Your task to perform on an android device: search for starred emails in the gmail app Image 0: 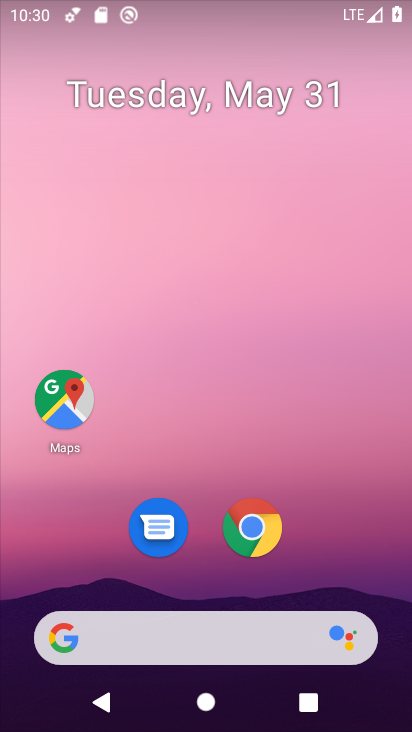
Step 0: drag from (328, 563) to (333, 0)
Your task to perform on an android device: search for starred emails in the gmail app Image 1: 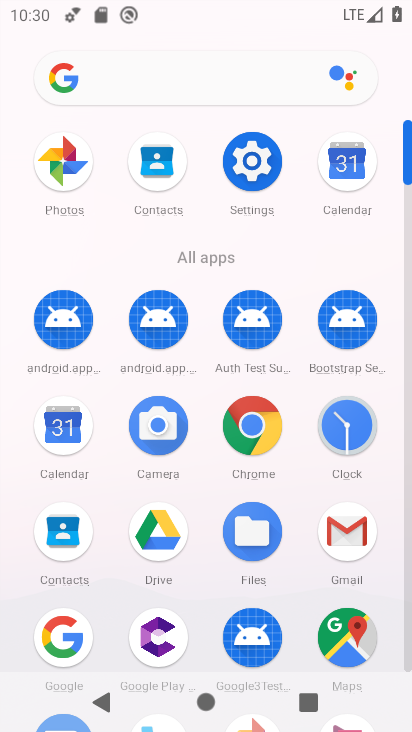
Step 1: click (339, 548)
Your task to perform on an android device: search for starred emails in the gmail app Image 2: 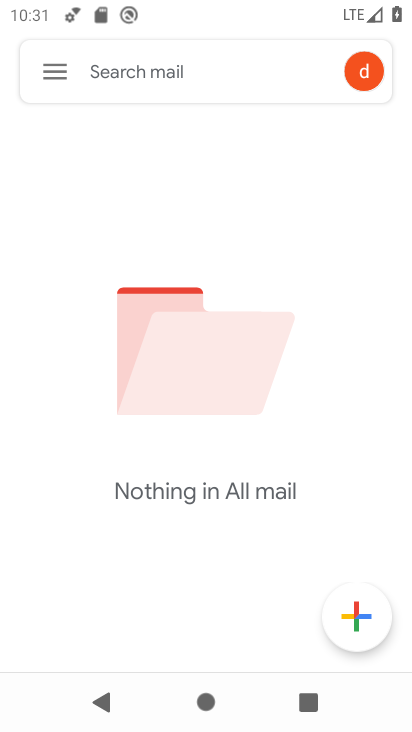
Step 2: click (68, 77)
Your task to perform on an android device: search for starred emails in the gmail app Image 3: 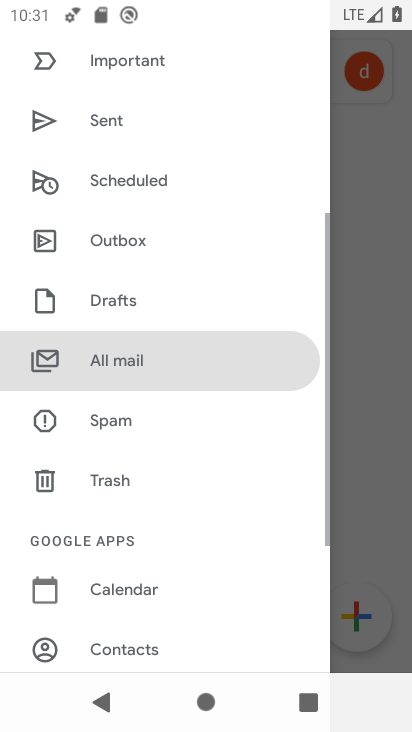
Step 3: drag from (155, 151) to (185, 593)
Your task to perform on an android device: search for starred emails in the gmail app Image 4: 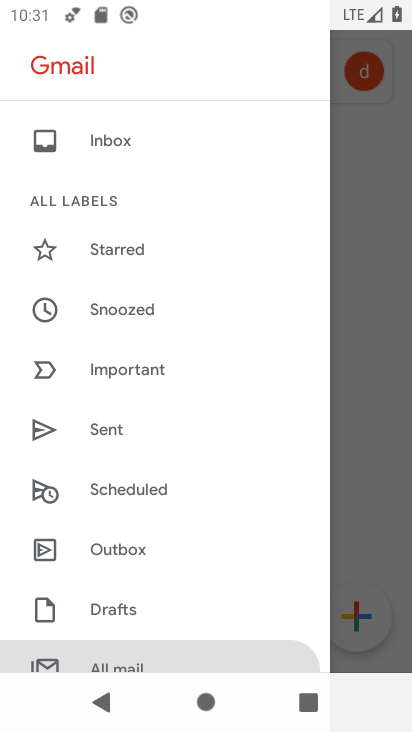
Step 4: click (105, 258)
Your task to perform on an android device: search for starred emails in the gmail app Image 5: 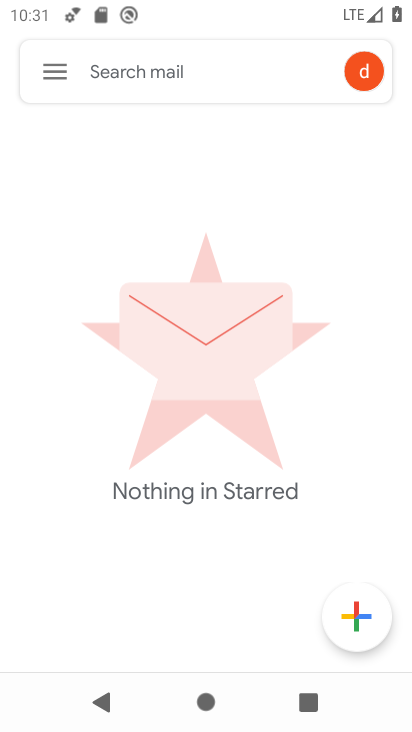
Step 5: task complete